Your task to perform on an android device: Open Google Chrome and click the shortcut for Amazon.com Image 0: 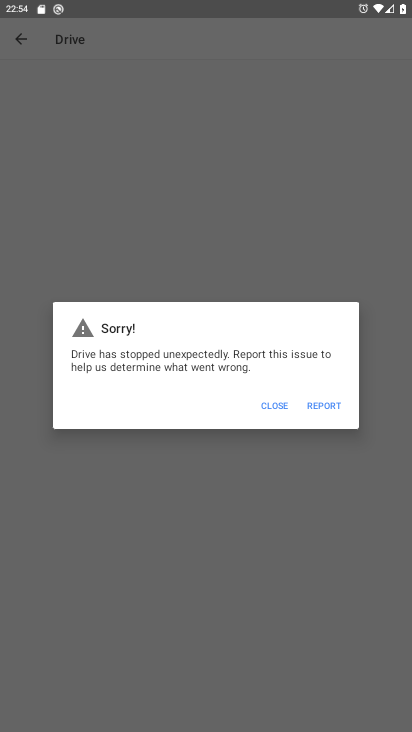
Step 0: press home button
Your task to perform on an android device: Open Google Chrome and click the shortcut for Amazon.com Image 1: 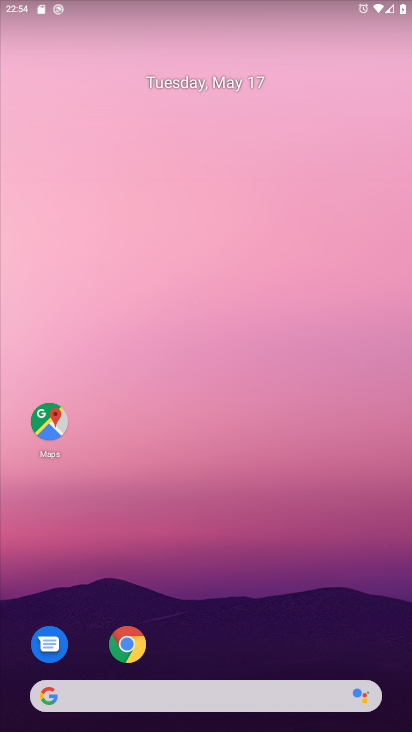
Step 1: drag from (203, 650) to (227, 323)
Your task to perform on an android device: Open Google Chrome and click the shortcut for Amazon.com Image 2: 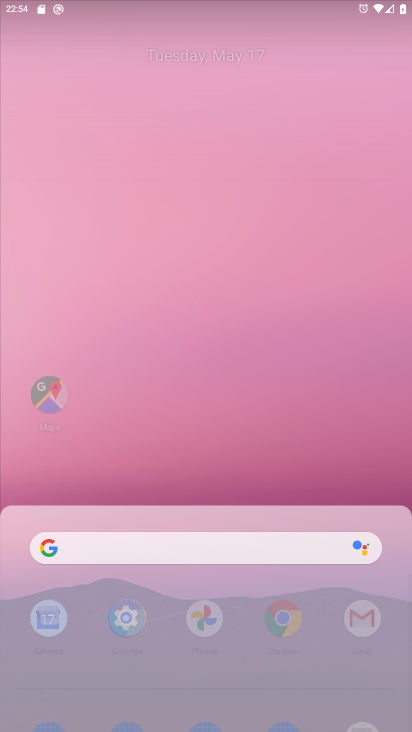
Step 2: drag from (234, 125) to (234, 55)
Your task to perform on an android device: Open Google Chrome and click the shortcut for Amazon.com Image 3: 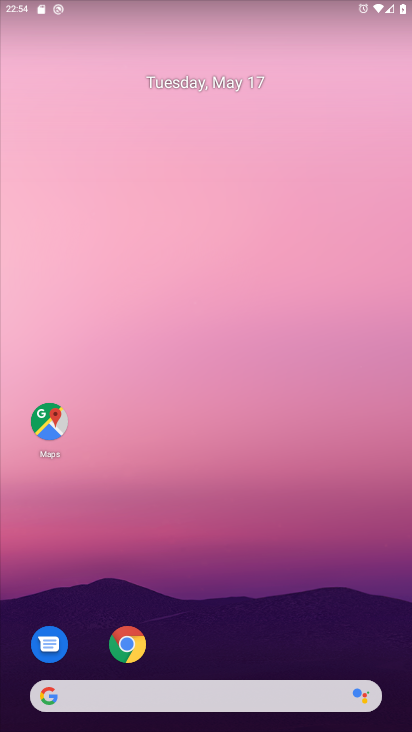
Step 3: drag from (213, 663) to (220, 14)
Your task to perform on an android device: Open Google Chrome and click the shortcut for Amazon.com Image 4: 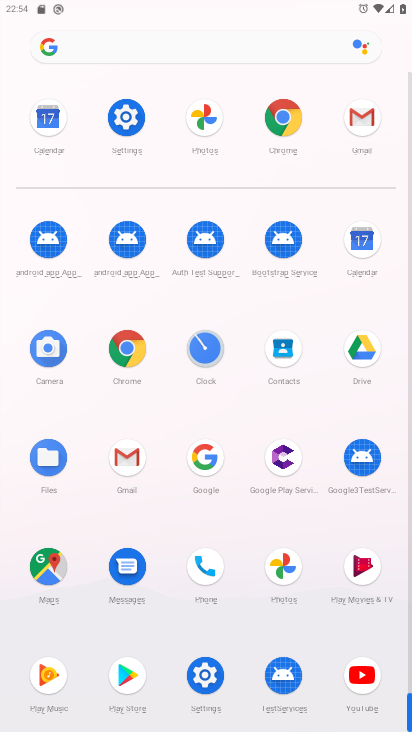
Step 4: click (126, 343)
Your task to perform on an android device: Open Google Chrome and click the shortcut for Amazon.com Image 5: 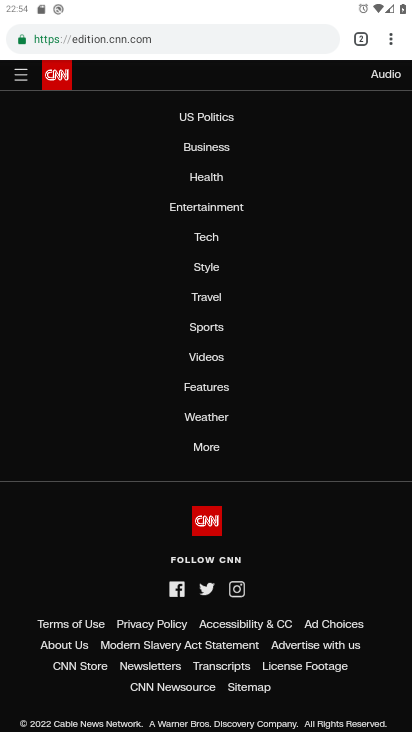
Step 5: click (354, 33)
Your task to perform on an android device: Open Google Chrome and click the shortcut for Amazon.com Image 6: 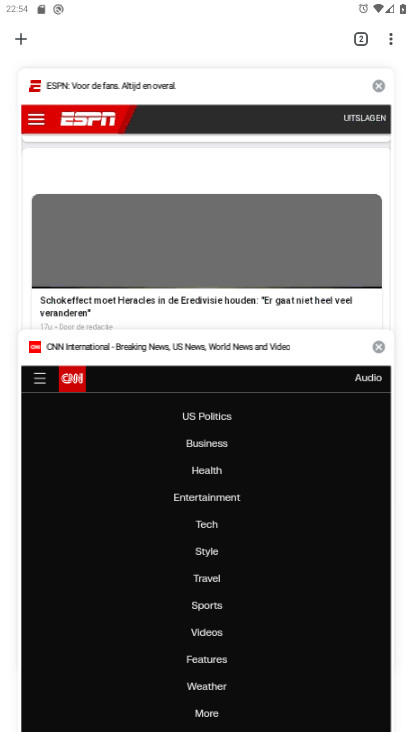
Step 6: click (13, 36)
Your task to perform on an android device: Open Google Chrome and click the shortcut for Amazon.com Image 7: 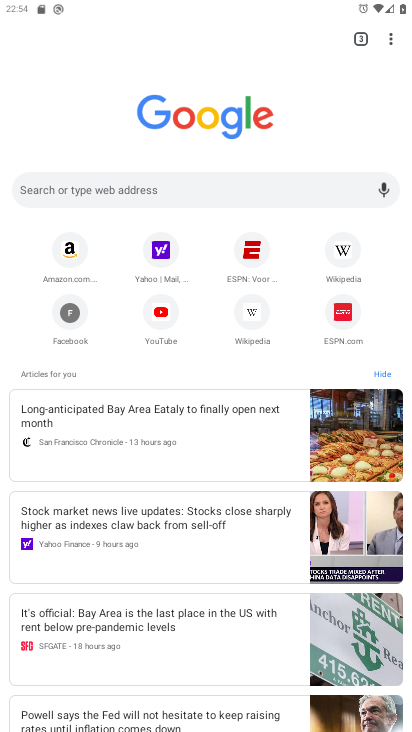
Step 7: click (65, 243)
Your task to perform on an android device: Open Google Chrome and click the shortcut for Amazon.com Image 8: 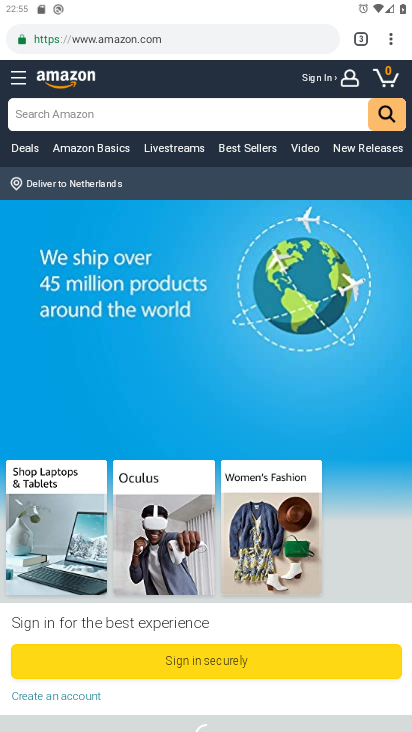
Step 8: task complete